Your task to perform on an android device: search for starred emails in the gmail app Image 0: 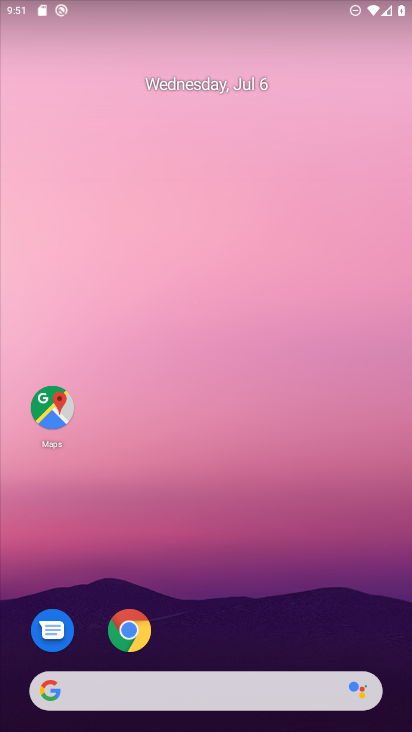
Step 0: drag from (318, 633) to (329, 15)
Your task to perform on an android device: search for starred emails in the gmail app Image 1: 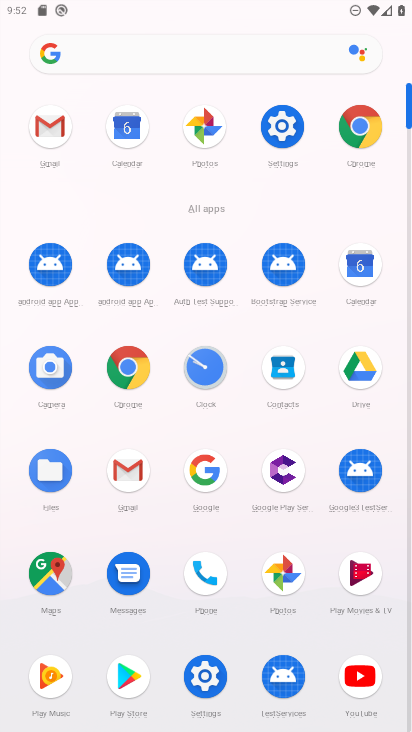
Step 1: click (70, 117)
Your task to perform on an android device: search for starred emails in the gmail app Image 2: 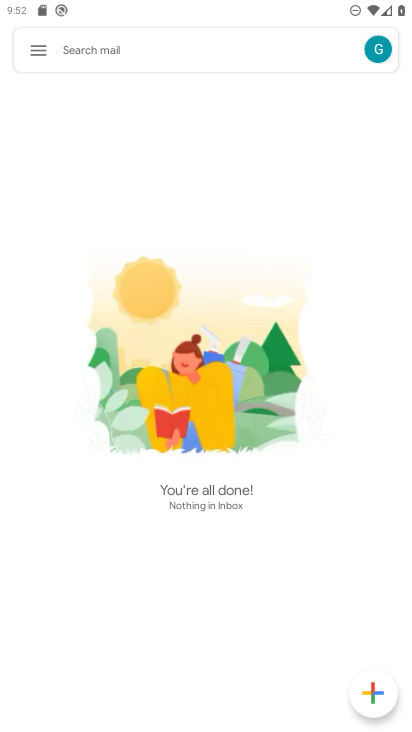
Step 2: click (29, 50)
Your task to perform on an android device: search for starred emails in the gmail app Image 3: 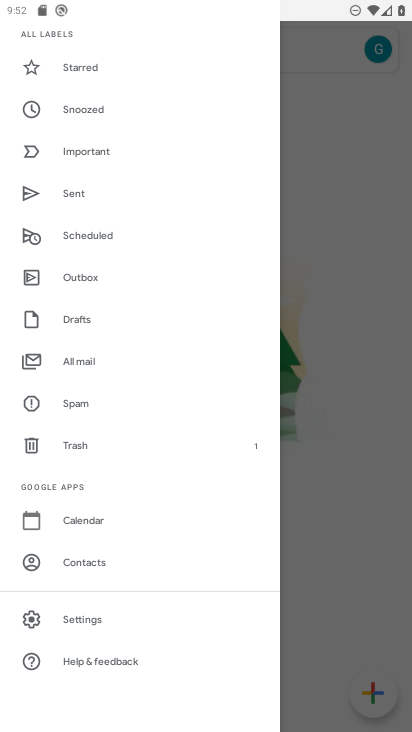
Step 3: click (86, 70)
Your task to perform on an android device: search for starred emails in the gmail app Image 4: 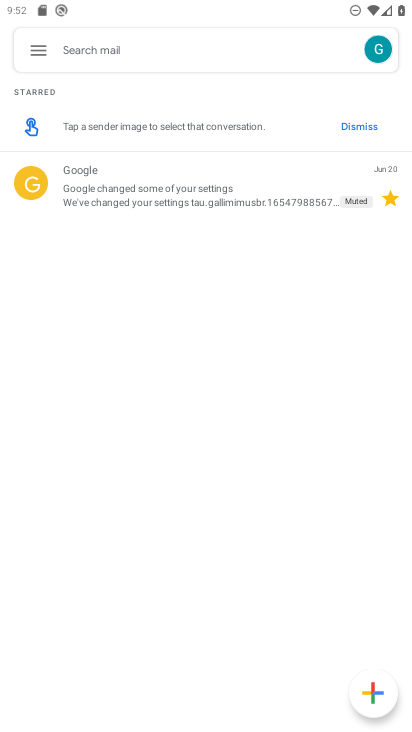
Step 4: task complete